Your task to perform on an android device: toggle sleep mode Image 0: 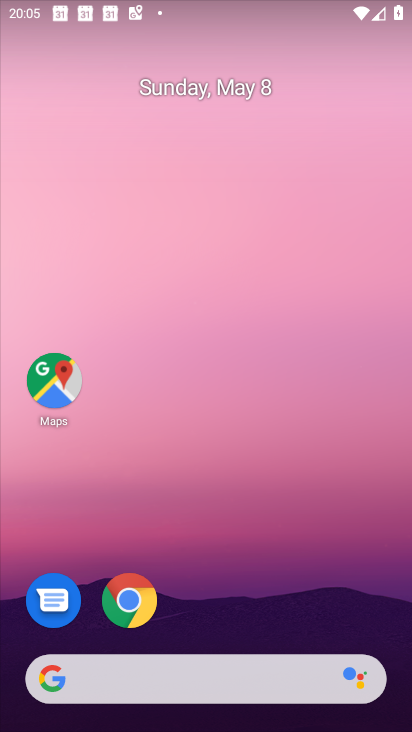
Step 0: drag from (271, 711) to (337, 201)
Your task to perform on an android device: toggle sleep mode Image 1: 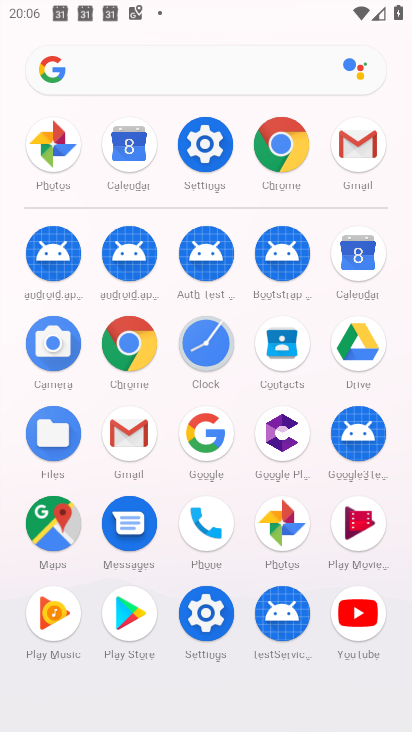
Step 1: click (202, 158)
Your task to perform on an android device: toggle sleep mode Image 2: 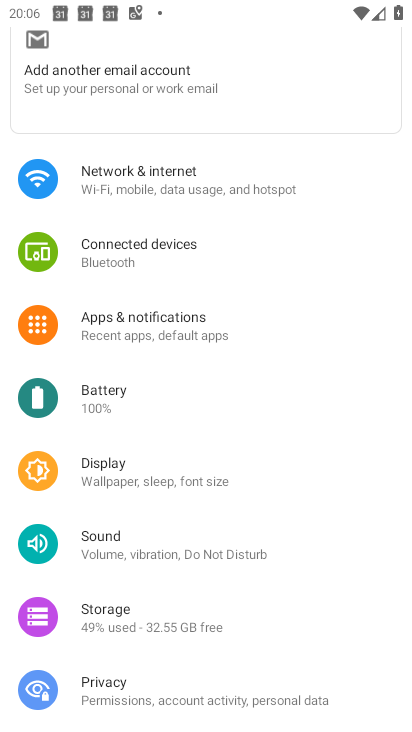
Step 2: drag from (287, 223) to (302, 338)
Your task to perform on an android device: toggle sleep mode Image 3: 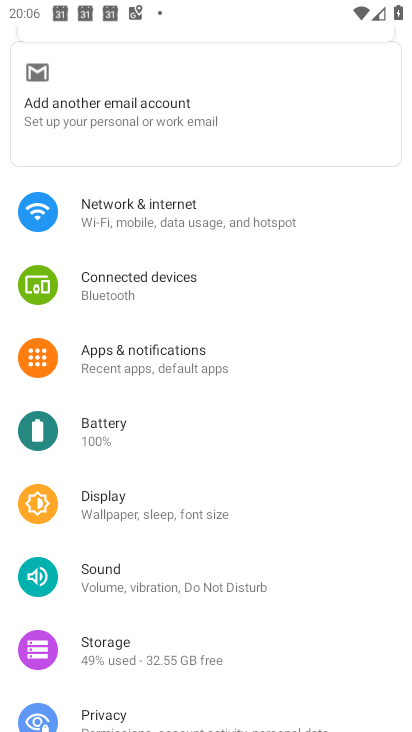
Step 3: drag from (185, 212) to (164, 331)
Your task to perform on an android device: toggle sleep mode Image 4: 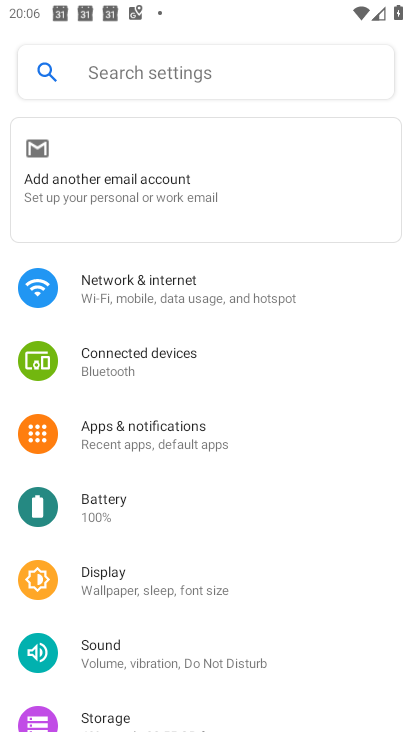
Step 4: click (179, 76)
Your task to perform on an android device: toggle sleep mode Image 5: 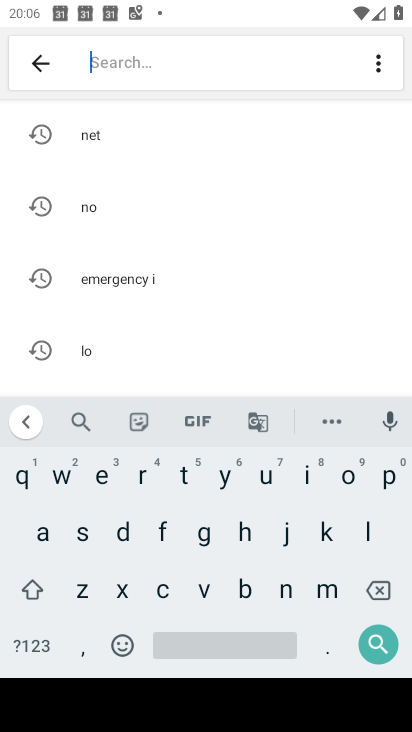
Step 5: click (80, 548)
Your task to perform on an android device: toggle sleep mode Image 6: 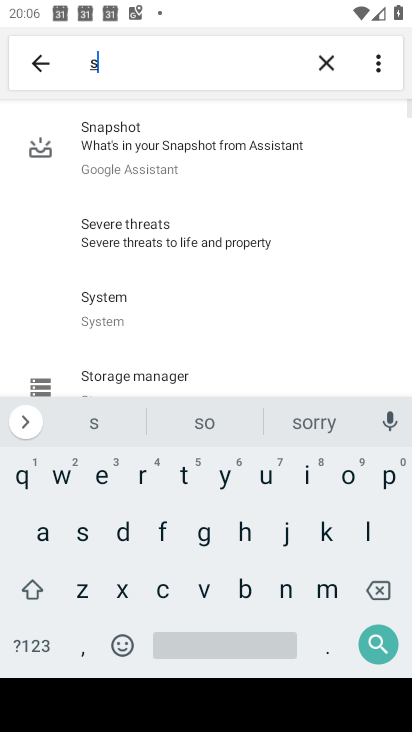
Step 6: click (362, 527)
Your task to perform on an android device: toggle sleep mode Image 7: 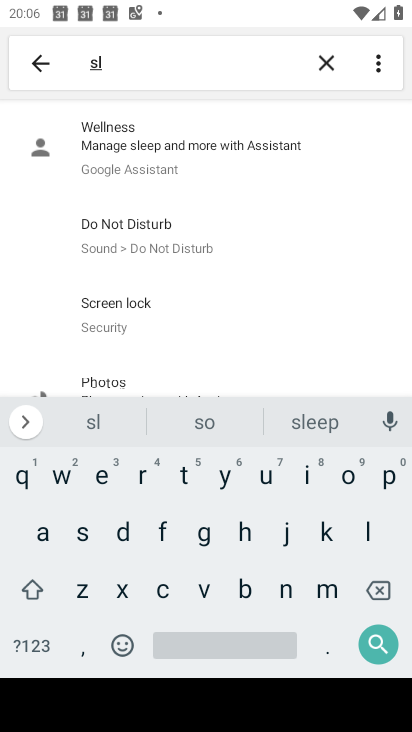
Step 7: click (163, 160)
Your task to perform on an android device: toggle sleep mode Image 8: 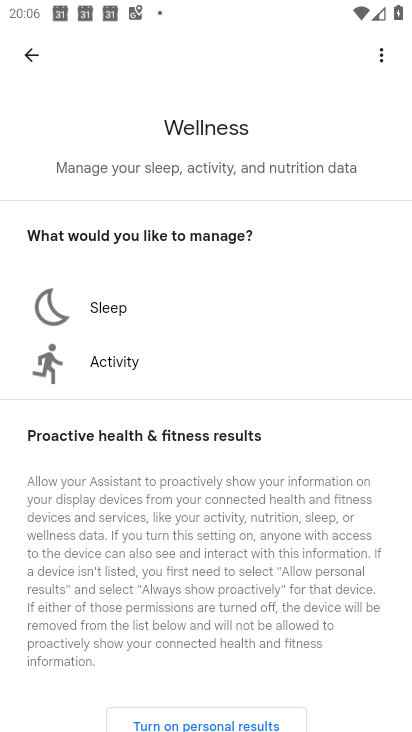
Step 8: click (134, 323)
Your task to perform on an android device: toggle sleep mode Image 9: 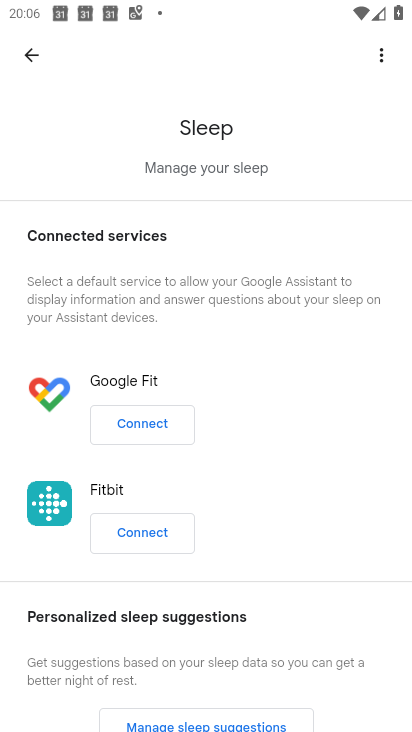
Step 9: task complete